Your task to perform on an android device: Empty the shopping cart on amazon.com. Add "acer predator" to the cart on amazon.com Image 0: 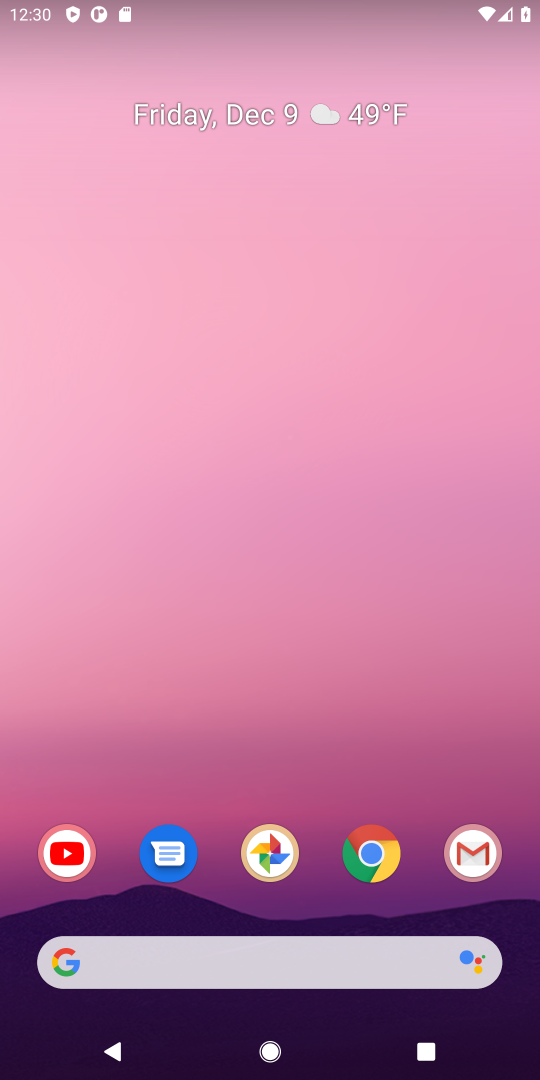
Step 0: drag from (280, 844) to (421, 250)
Your task to perform on an android device: Empty the shopping cart on amazon.com. Add "acer predator" to the cart on amazon.com Image 1: 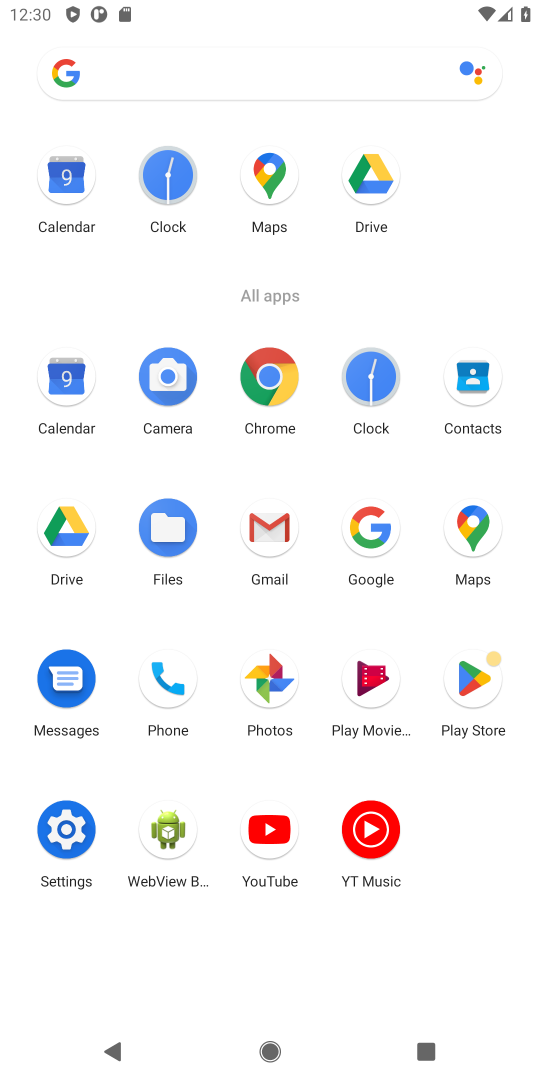
Step 1: click (359, 534)
Your task to perform on an android device: Empty the shopping cart on amazon.com. Add "acer predator" to the cart on amazon.com Image 2: 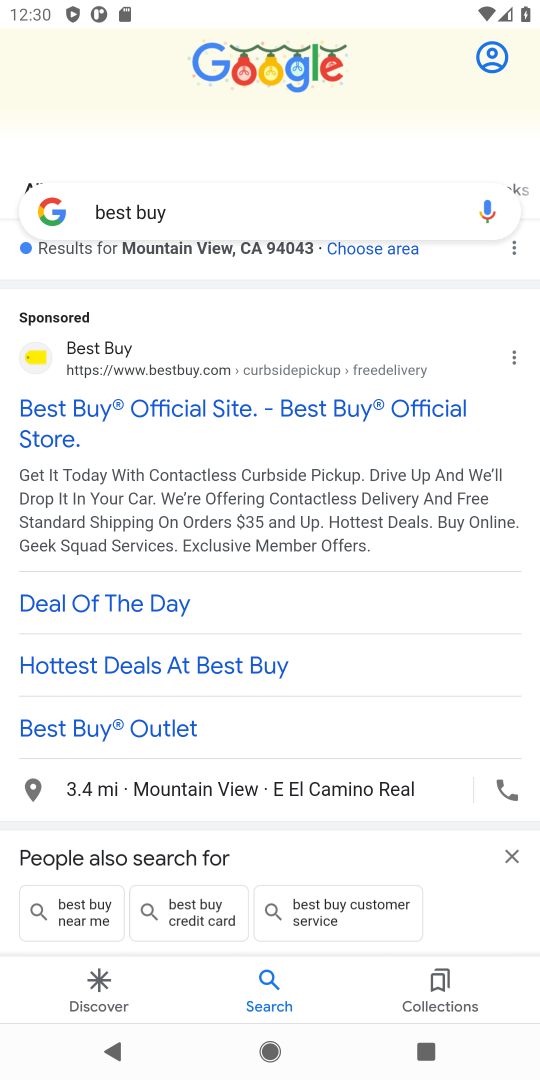
Step 2: click (207, 215)
Your task to perform on an android device: Empty the shopping cart on amazon.com. Add "acer predator" to the cart on amazon.com Image 3: 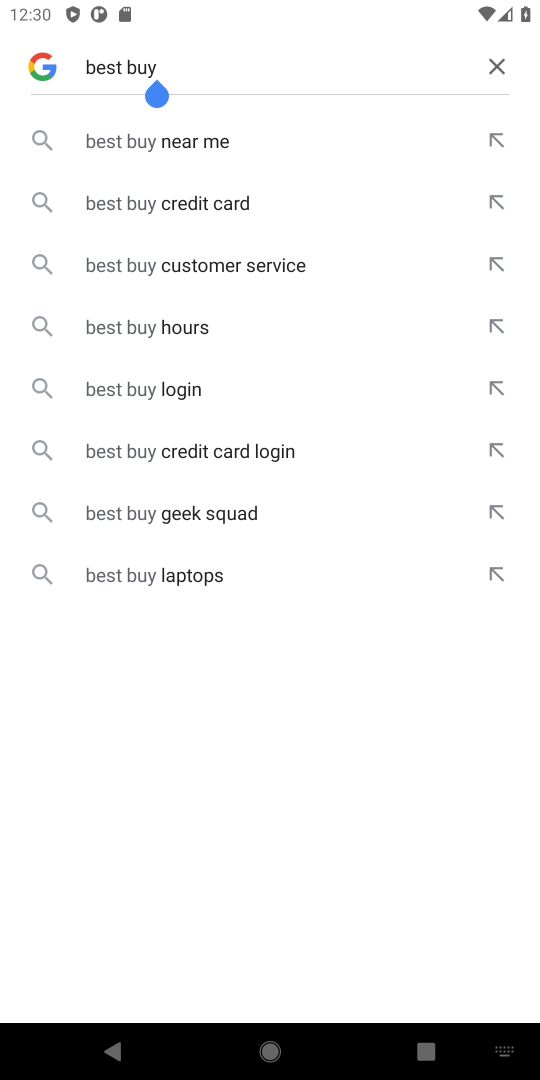
Step 3: click (496, 76)
Your task to perform on an android device: Empty the shopping cart on amazon.com. Add "acer predator" to the cart on amazon.com Image 4: 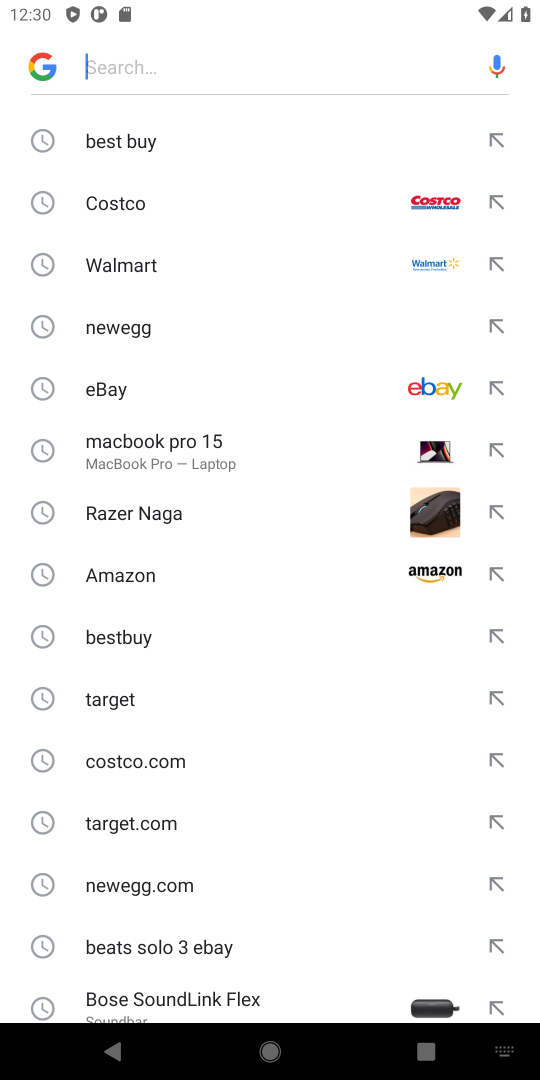
Step 4: click (122, 573)
Your task to perform on an android device: Empty the shopping cart on amazon.com. Add "acer predator" to the cart on amazon.com Image 5: 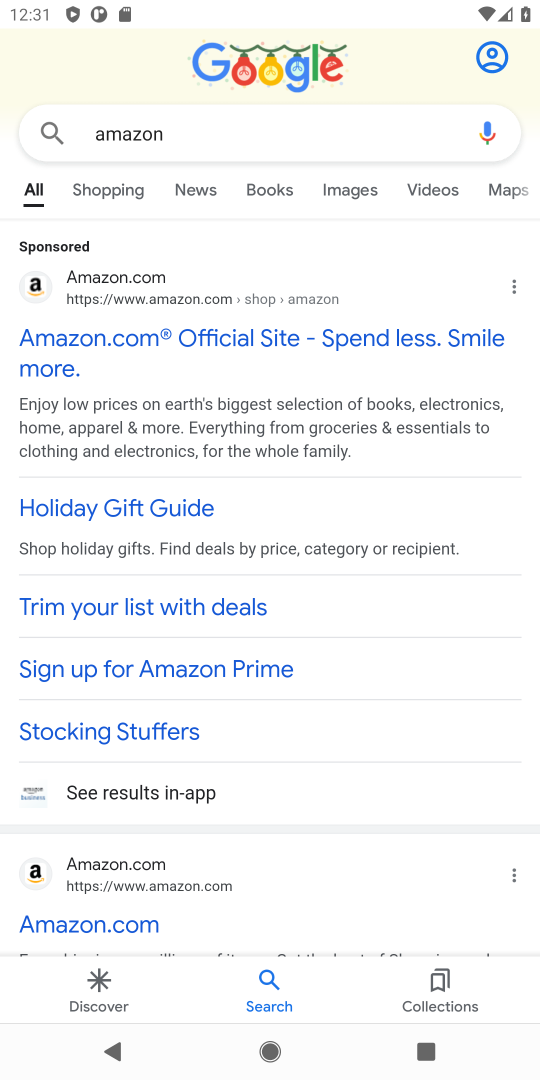
Step 5: click (166, 357)
Your task to perform on an android device: Empty the shopping cart on amazon.com. Add "acer predator" to the cart on amazon.com Image 6: 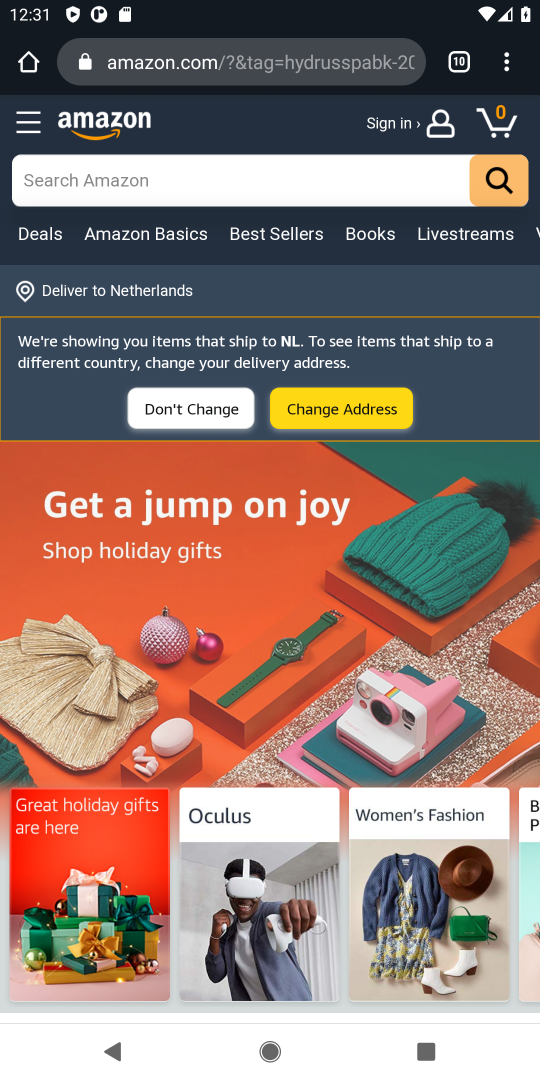
Step 6: click (506, 120)
Your task to perform on an android device: Empty the shopping cart on amazon.com. Add "acer predator" to the cart on amazon.com Image 7: 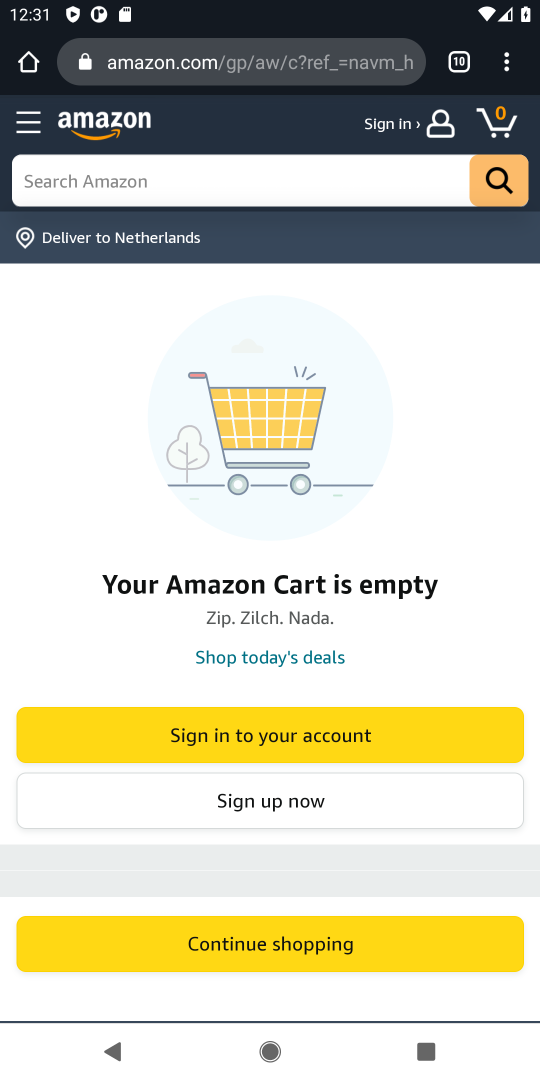
Step 7: click (109, 173)
Your task to perform on an android device: Empty the shopping cart on amazon.com. Add "acer predator" to the cart on amazon.com Image 8: 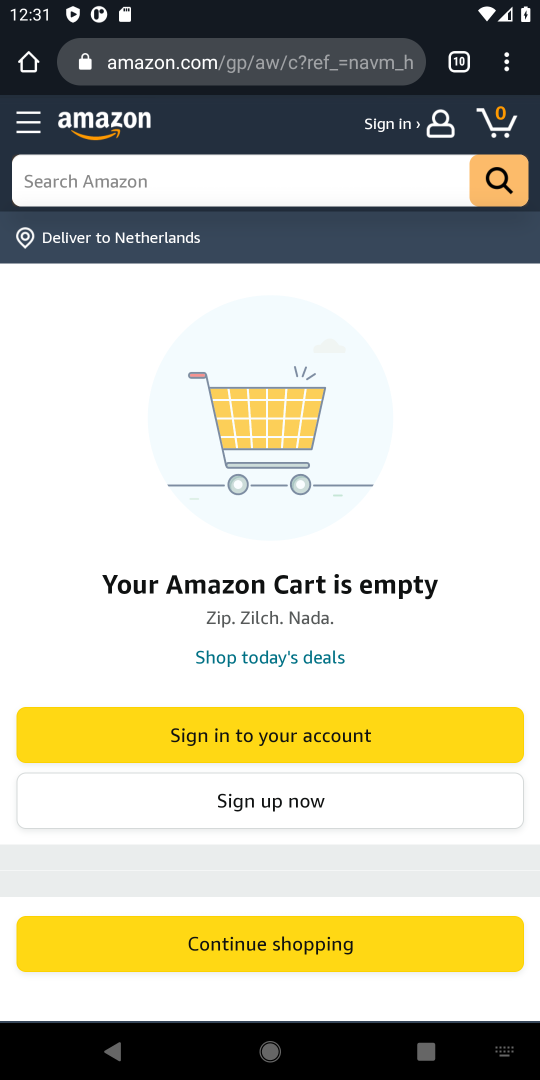
Step 8: type "acer predator"
Your task to perform on an android device: Empty the shopping cart on amazon.com. Add "acer predator" to the cart on amazon.com Image 9: 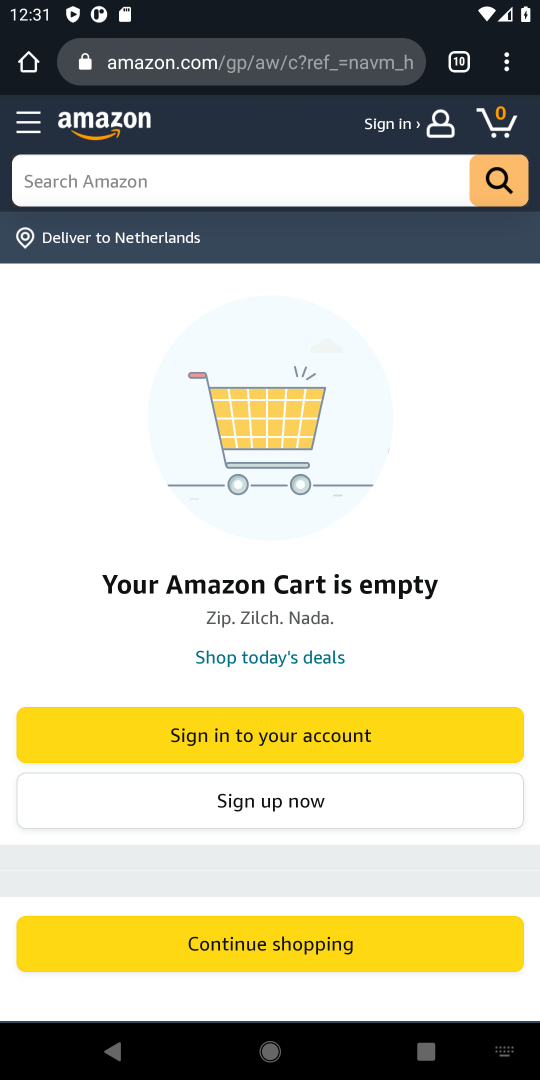
Step 9: click (481, 187)
Your task to perform on an android device: Empty the shopping cart on amazon.com. Add "acer predator" to the cart on amazon.com Image 10: 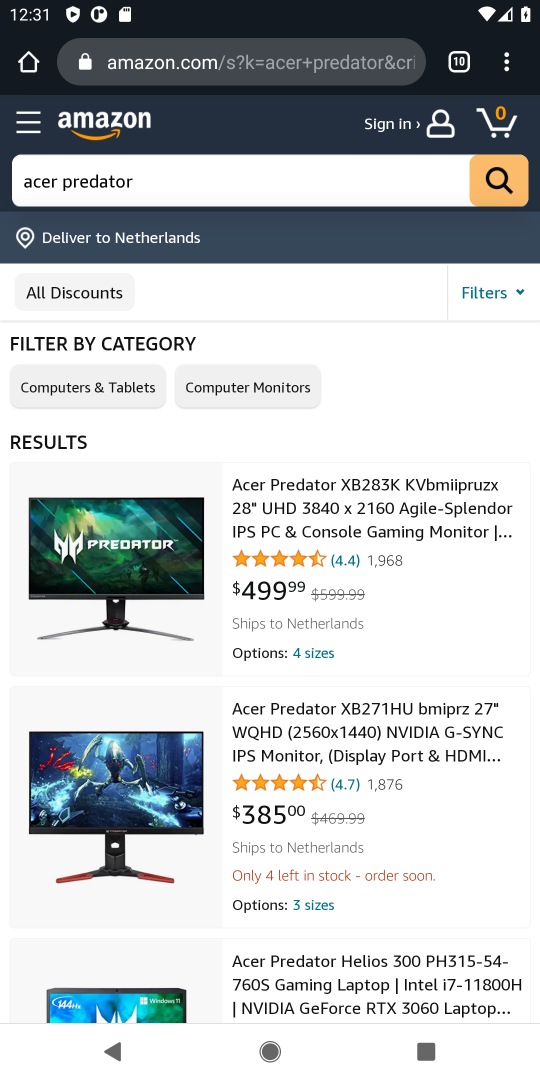
Step 10: click (307, 556)
Your task to perform on an android device: Empty the shopping cart on amazon.com. Add "acer predator" to the cart on amazon.com Image 11: 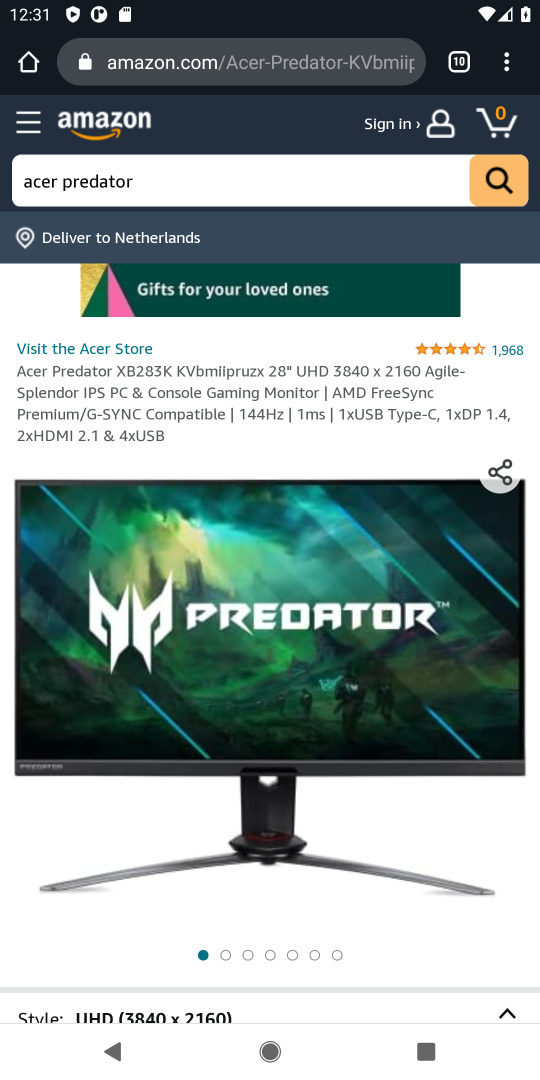
Step 11: drag from (333, 876) to (371, 181)
Your task to perform on an android device: Empty the shopping cart on amazon.com. Add "acer predator" to the cart on amazon.com Image 12: 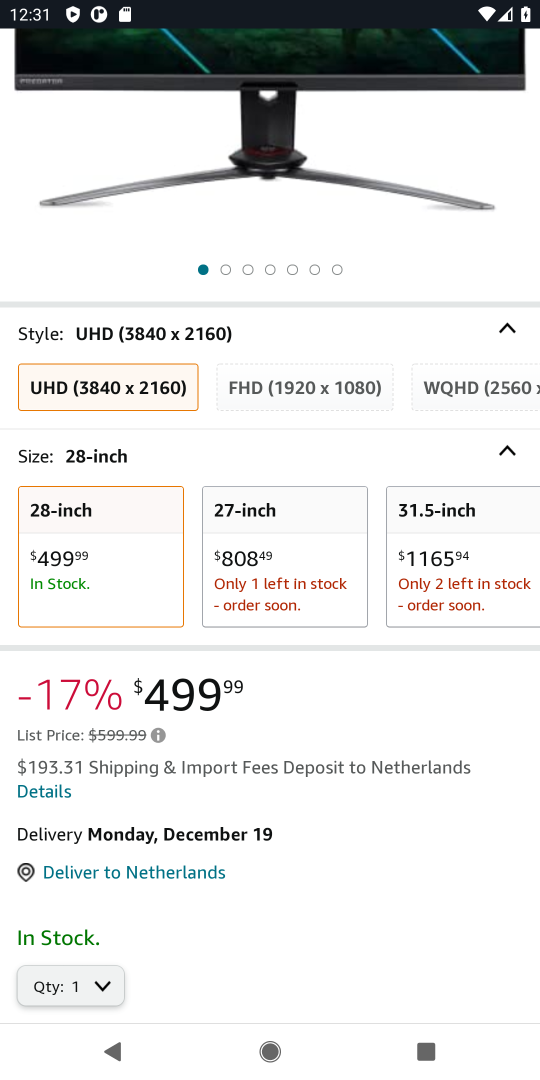
Step 12: drag from (286, 859) to (318, 423)
Your task to perform on an android device: Empty the shopping cart on amazon.com. Add "acer predator" to the cart on amazon.com Image 13: 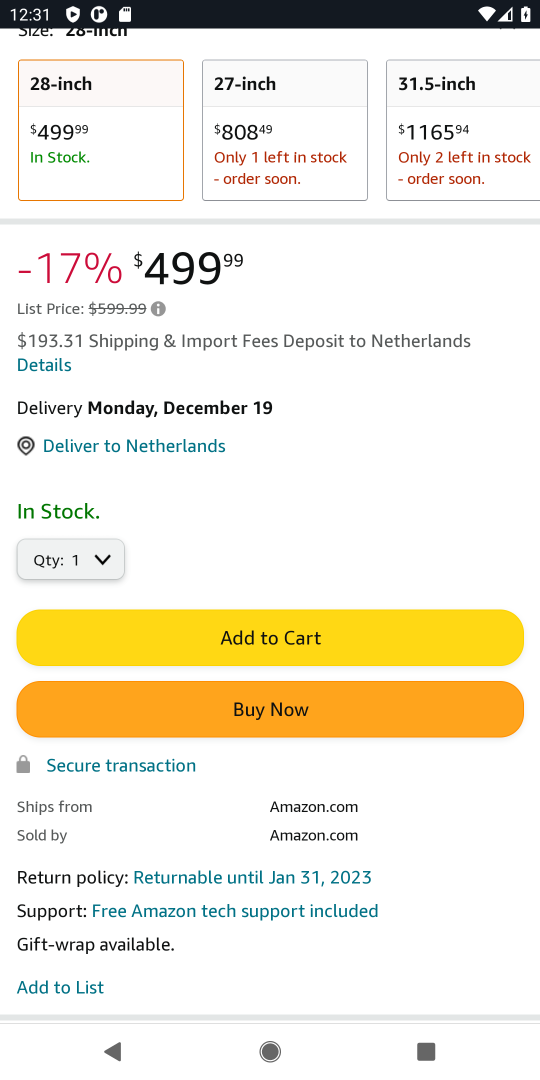
Step 13: click (310, 644)
Your task to perform on an android device: Empty the shopping cart on amazon.com. Add "acer predator" to the cart on amazon.com Image 14: 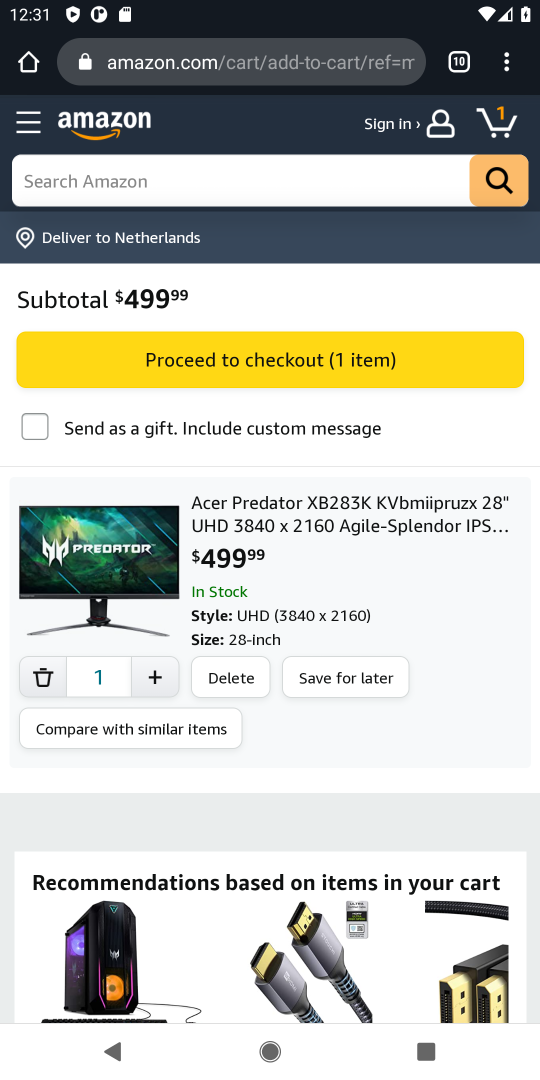
Step 14: click (247, 361)
Your task to perform on an android device: Empty the shopping cart on amazon.com. Add "acer predator" to the cart on amazon.com Image 15: 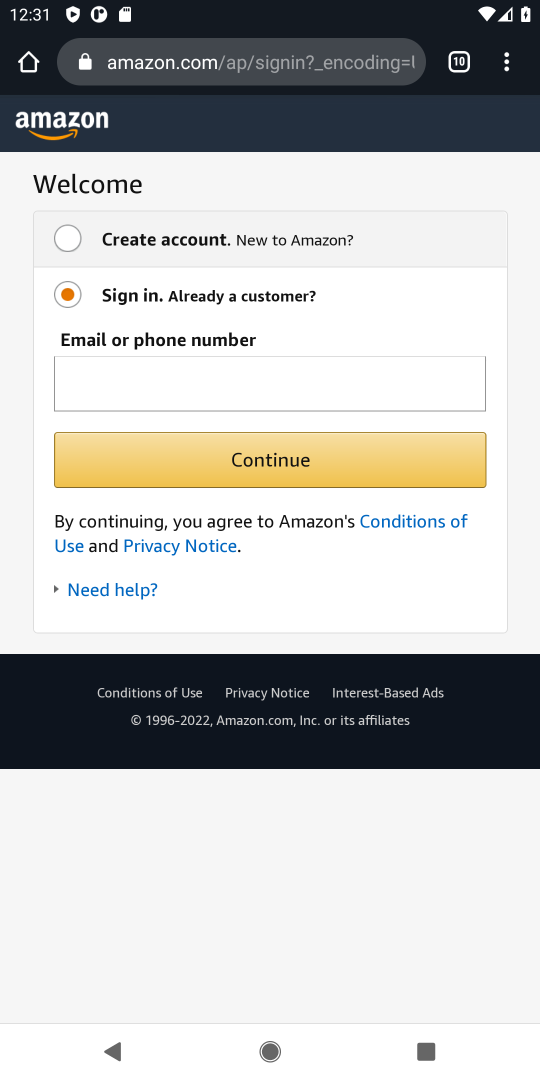
Step 15: task complete